Your task to perform on an android device: toggle location history Image 0: 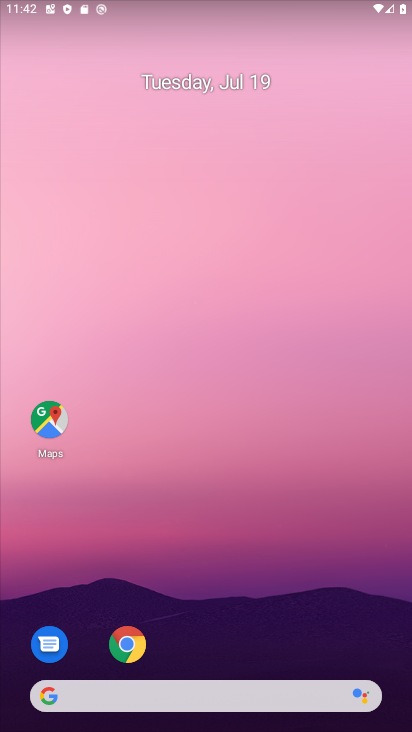
Step 0: press home button
Your task to perform on an android device: toggle location history Image 1: 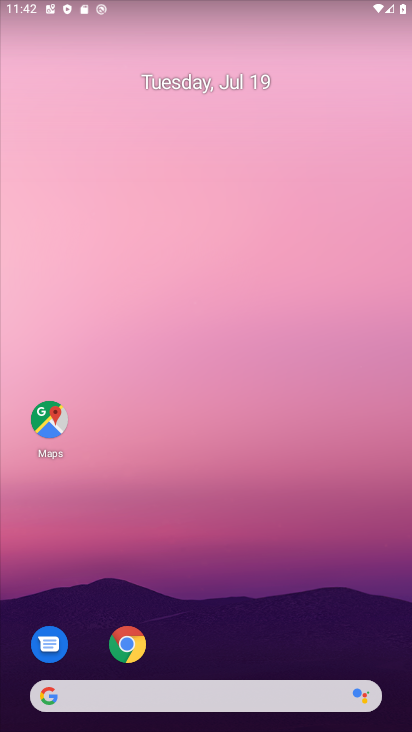
Step 1: press home button
Your task to perform on an android device: toggle location history Image 2: 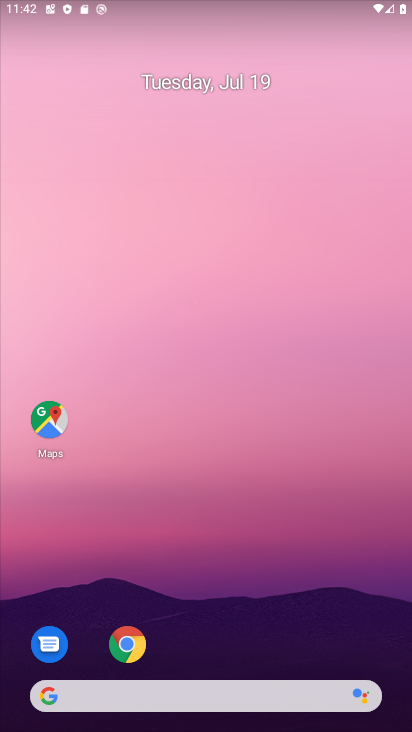
Step 2: drag from (230, 720) to (173, 191)
Your task to perform on an android device: toggle location history Image 3: 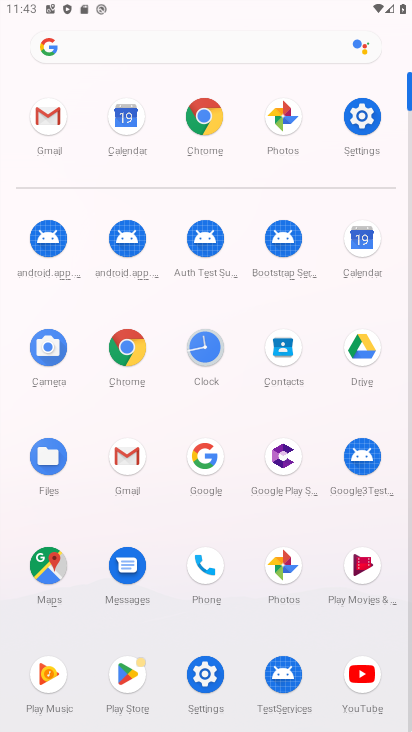
Step 3: click (45, 595)
Your task to perform on an android device: toggle location history Image 4: 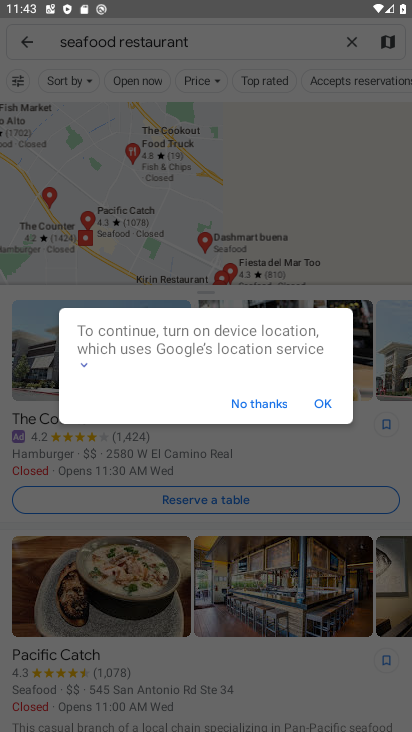
Step 4: click (14, 37)
Your task to perform on an android device: toggle location history Image 5: 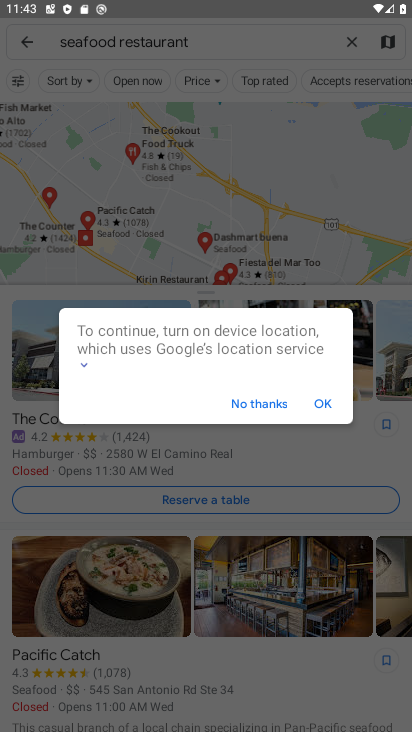
Step 5: click (337, 398)
Your task to perform on an android device: toggle location history Image 6: 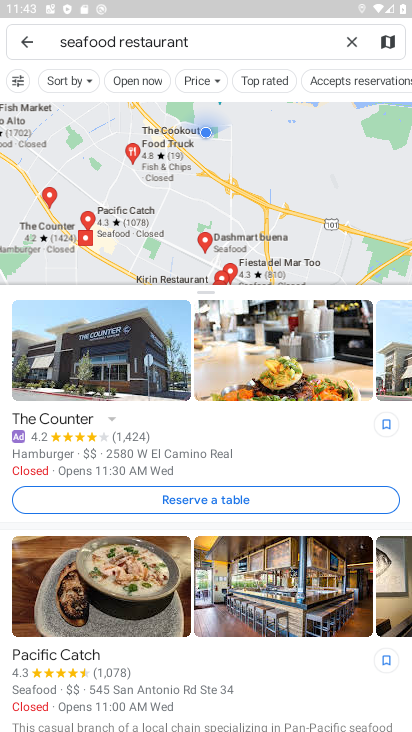
Step 6: click (10, 40)
Your task to perform on an android device: toggle location history Image 7: 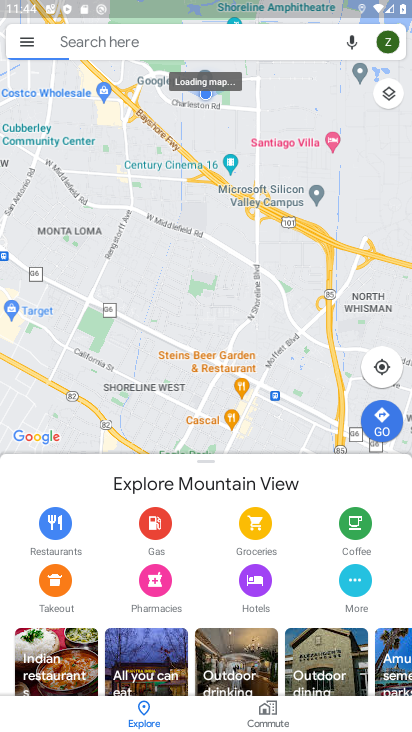
Step 7: click (29, 38)
Your task to perform on an android device: toggle location history Image 8: 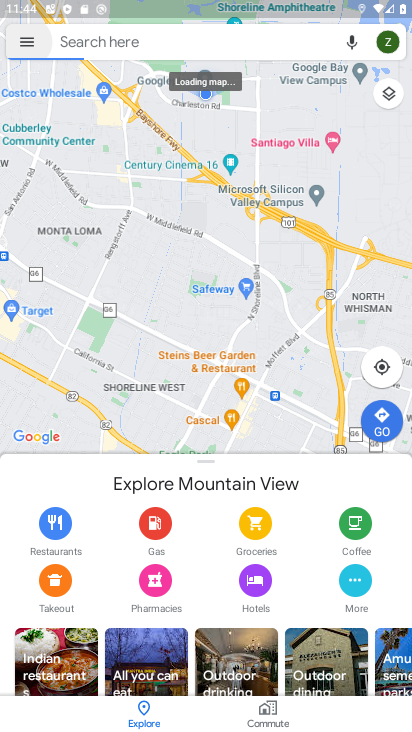
Step 8: click (29, 38)
Your task to perform on an android device: toggle location history Image 9: 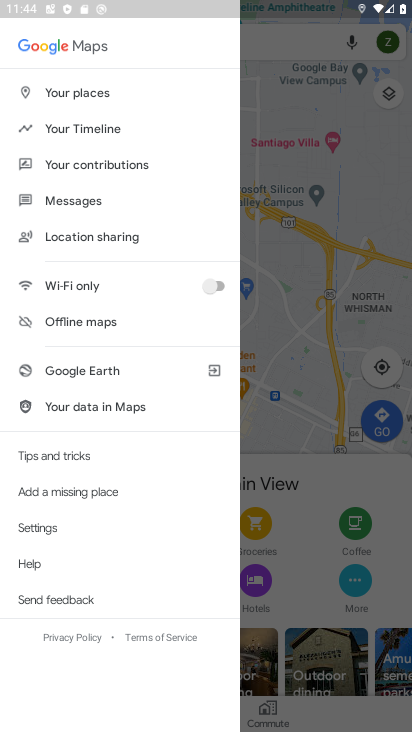
Step 9: click (78, 124)
Your task to perform on an android device: toggle location history Image 10: 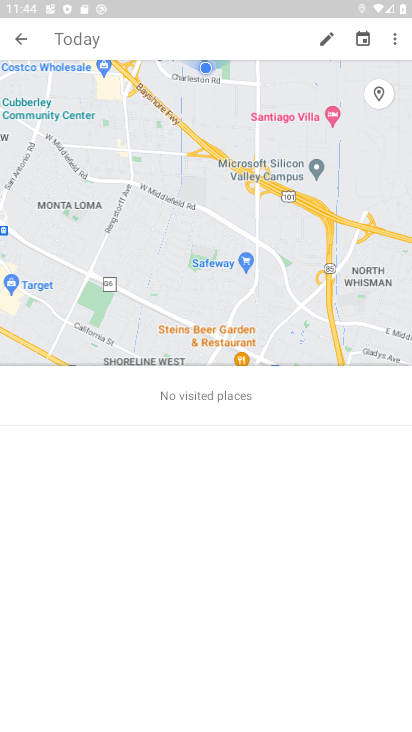
Step 10: click (392, 44)
Your task to perform on an android device: toggle location history Image 11: 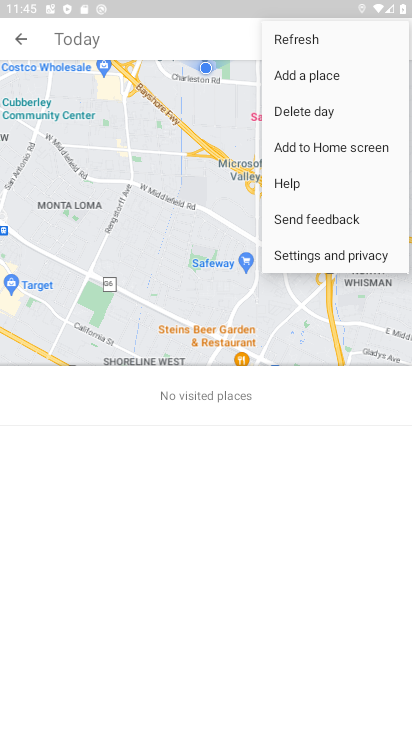
Step 11: click (334, 253)
Your task to perform on an android device: toggle location history Image 12: 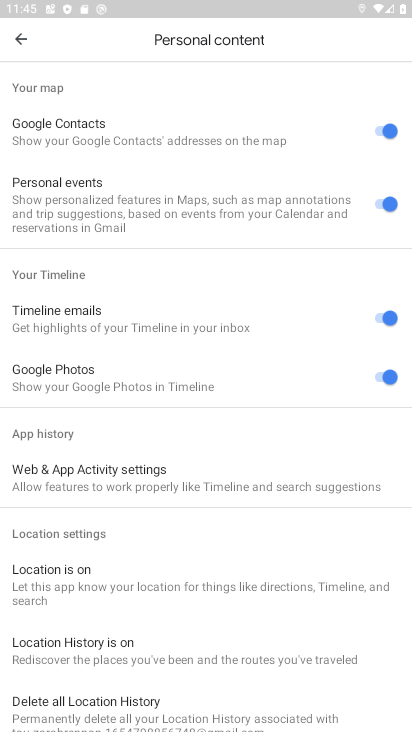
Step 12: click (150, 654)
Your task to perform on an android device: toggle location history Image 13: 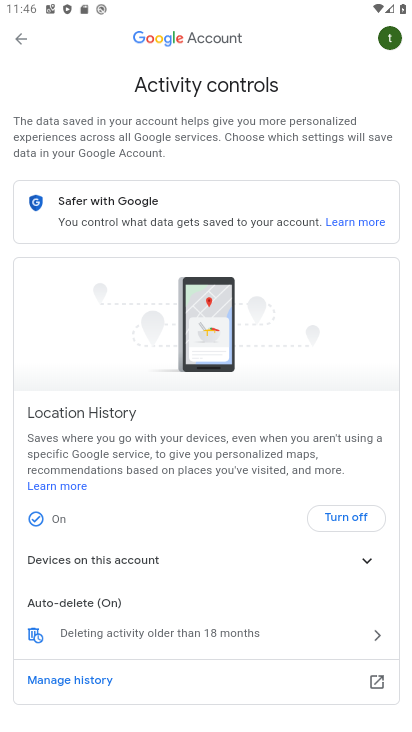
Step 13: click (352, 523)
Your task to perform on an android device: toggle location history Image 14: 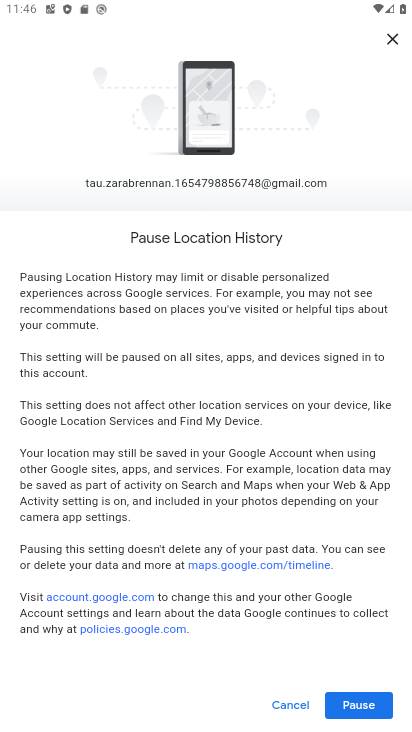
Step 14: click (357, 705)
Your task to perform on an android device: toggle location history Image 15: 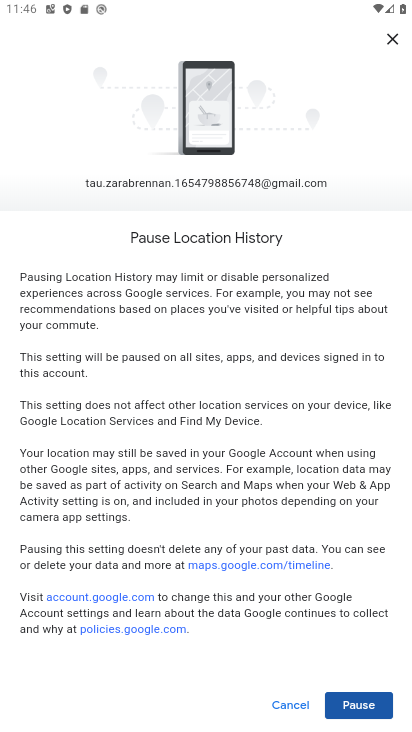
Step 15: click (381, 712)
Your task to perform on an android device: toggle location history Image 16: 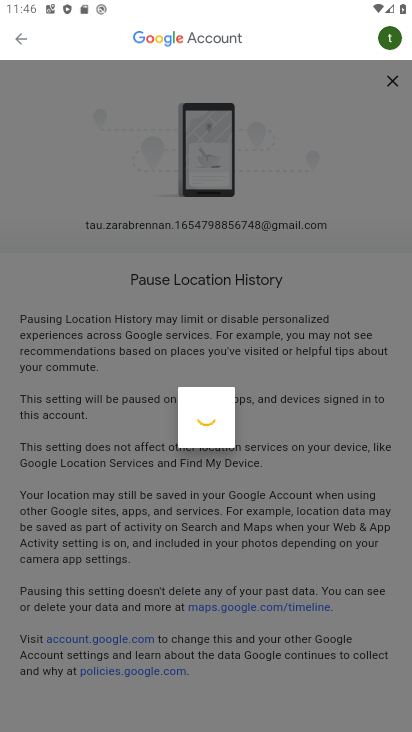
Step 16: click (381, 712)
Your task to perform on an android device: toggle location history Image 17: 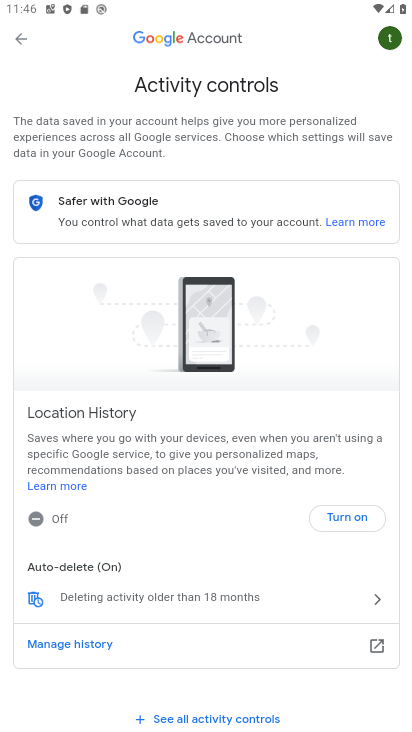
Step 17: click (381, 712)
Your task to perform on an android device: toggle location history Image 18: 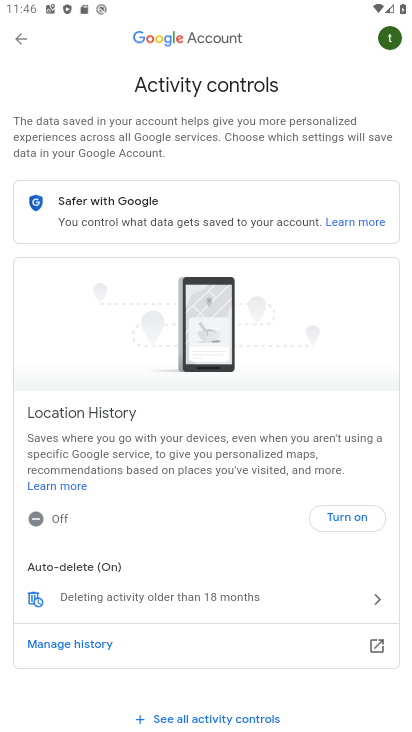
Step 18: task complete